Your task to perform on an android device: turn on improve location accuracy Image 0: 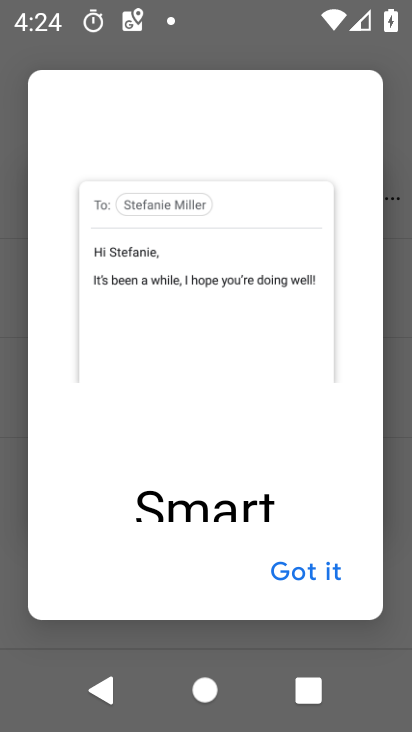
Step 0: press home button
Your task to perform on an android device: turn on improve location accuracy Image 1: 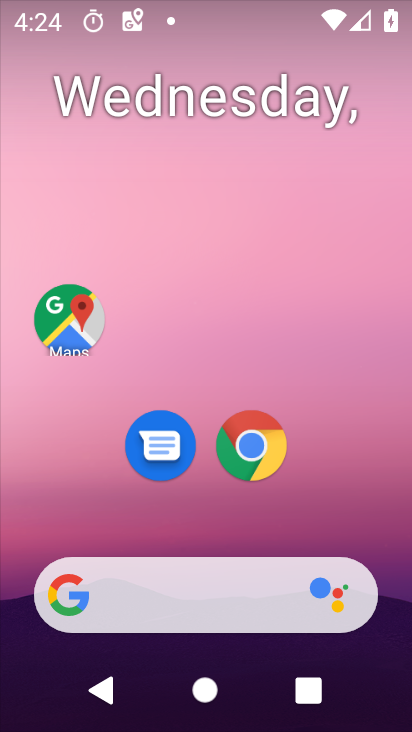
Step 1: drag from (220, 477) to (251, 41)
Your task to perform on an android device: turn on improve location accuracy Image 2: 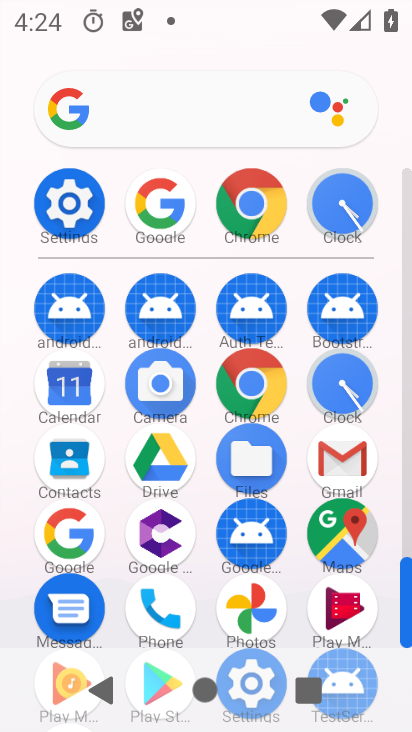
Step 2: drag from (115, 433) to (114, 183)
Your task to perform on an android device: turn on improve location accuracy Image 3: 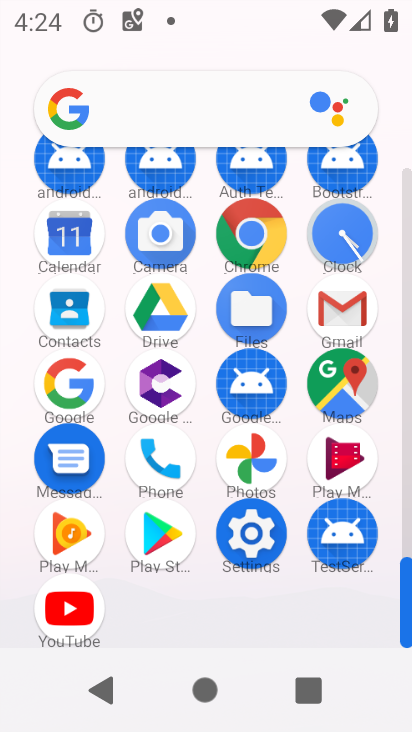
Step 3: click (258, 538)
Your task to perform on an android device: turn on improve location accuracy Image 4: 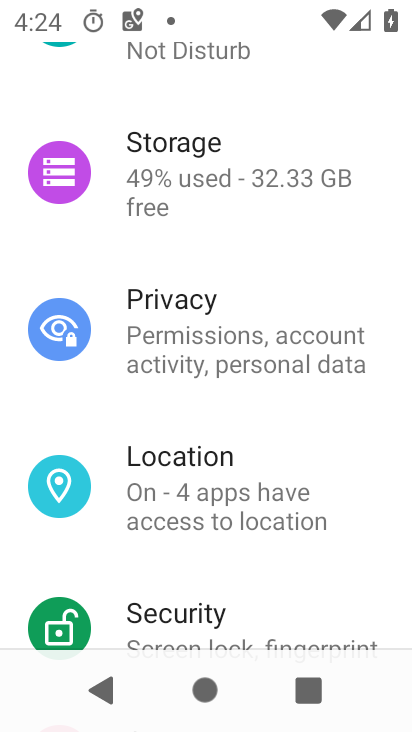
Step 4: drag from (216, 252) to (245, 609)
Your task to perform on an android device: turn on improve location accuracy Image 5: 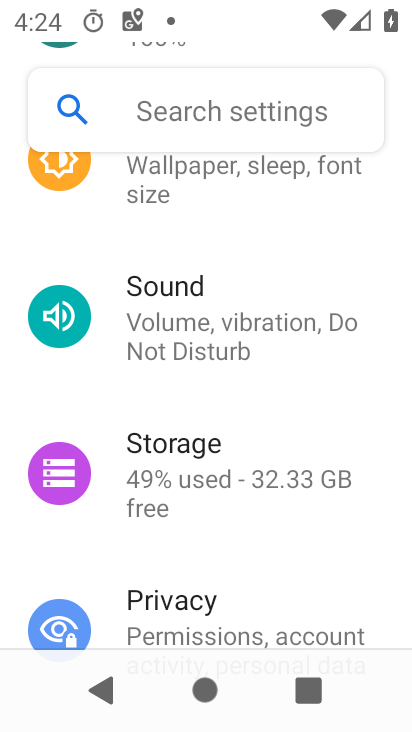
Step 5: drag from (226, 226) to (254, 559)
Your task to perform on an android device: turn on improve location accuracy Image 6: 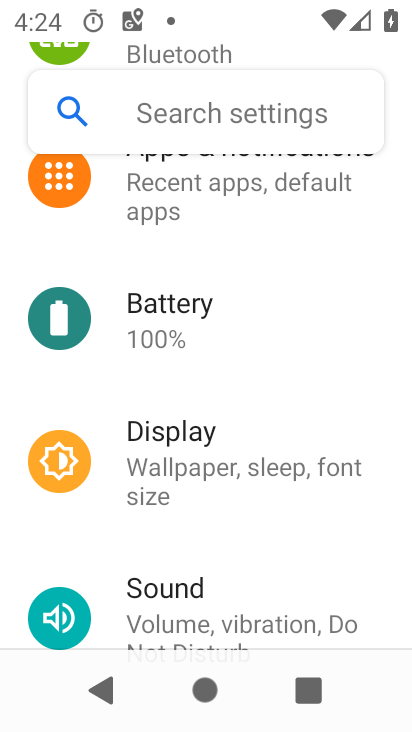
Step 6: drag from (201, 260) to (253, 580)
Your task to perform on an android device: turn on improve location accuracy Image 7: 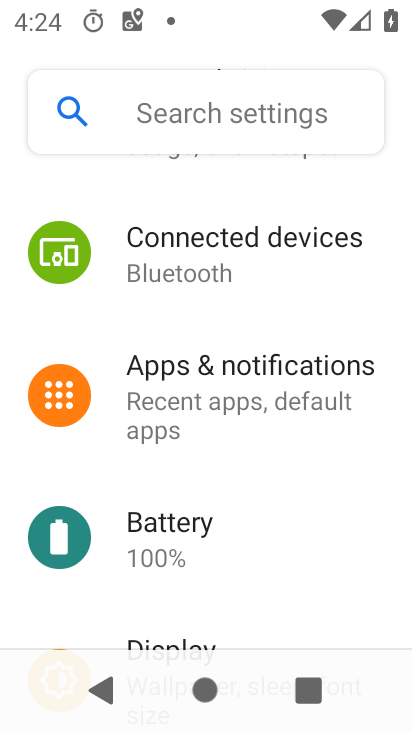
Step 7: drag from (147, 199) to (309, 10)
Your task to perform on an android device: turn on improve location accuracy Image 8: 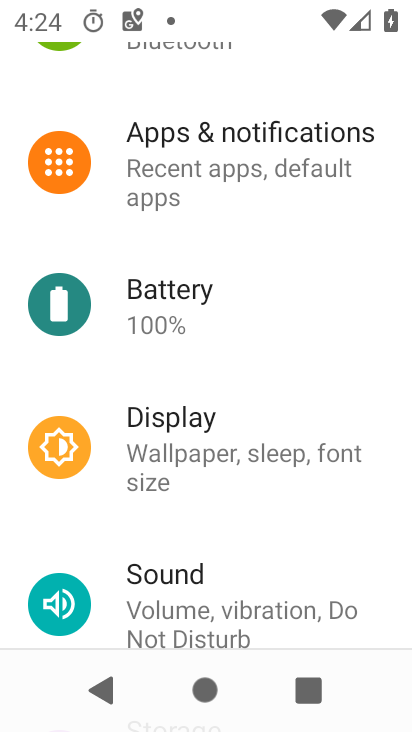
Step 8: drag from (230, 528) to (286, 10)
Your task to perform on an android device: turn on improve location accuracy Image 9: 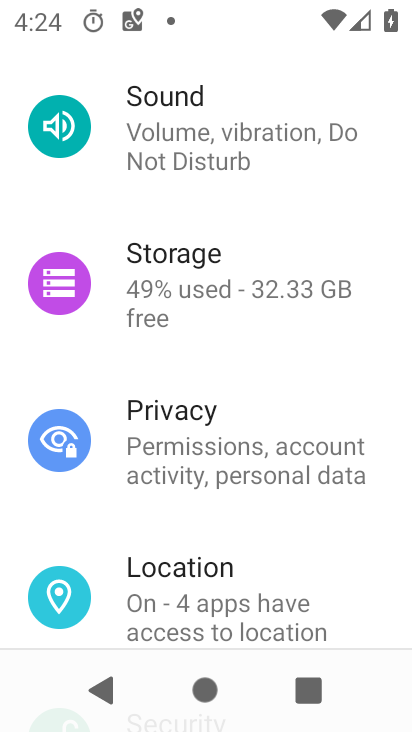
Step 9: click (173, 587)
Your task to perform on an android device: turn on improve location accuracy Image 10: 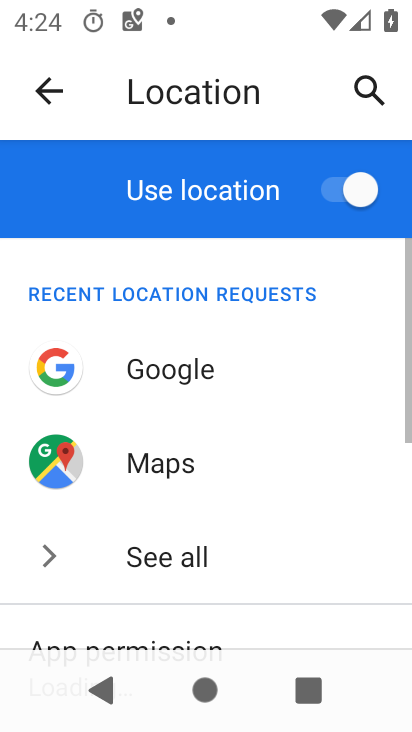
Step 10: drag from (259, 568) to (298, 103)
Your task to perform on an android device: turn on improve location accuracy Image 11: 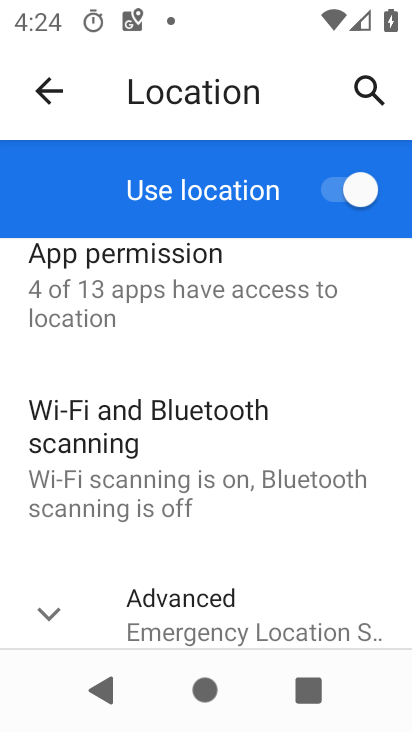
Step 11: click (209, 626)
Your task to perform on an android device: turn on improve location accuracy Image 12: 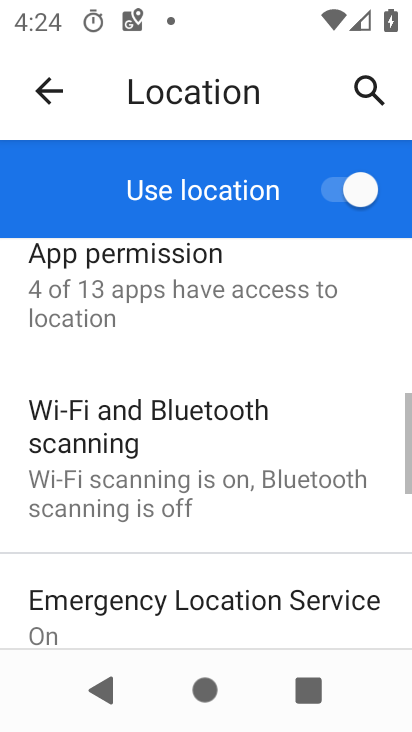
Step 12: drag from (244, 529) to (241, 152)
Your task to perform on an android device: turn on improve location accuracy Image 13: 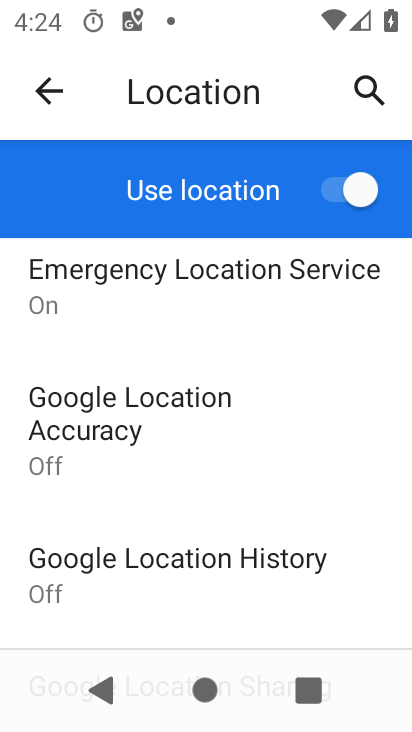
Step 13: click (175, 425)
Your task to perform on an android device: turn on improve location accuracy Image 14: 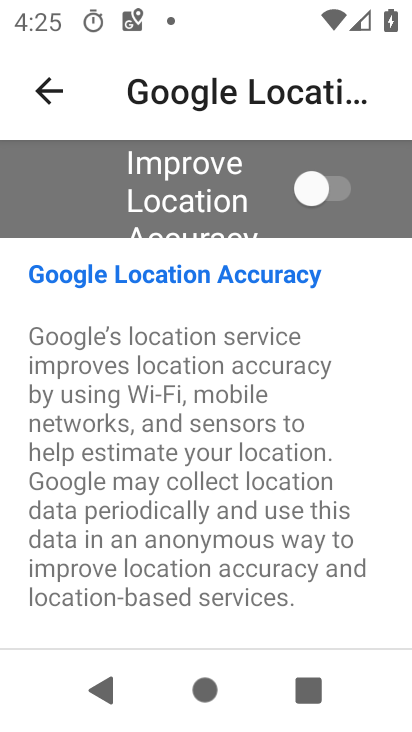
Step 14: click (331, 172)
Your task to perform on an android device: turn on improve location accuracy Image 15: 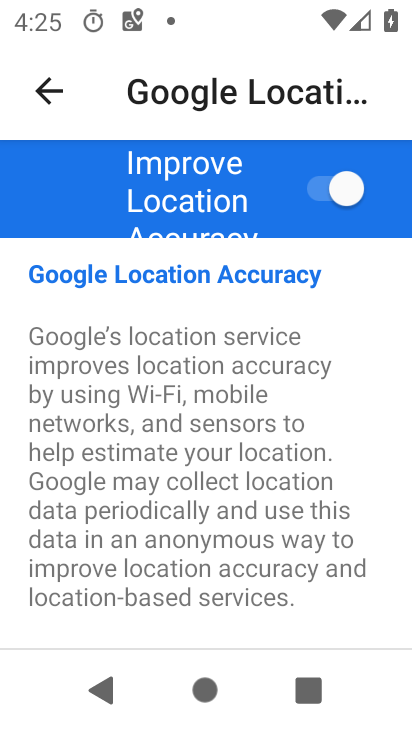
Step 15: task complete